Your task to perform on an android device: change text size in settings app Image 0: 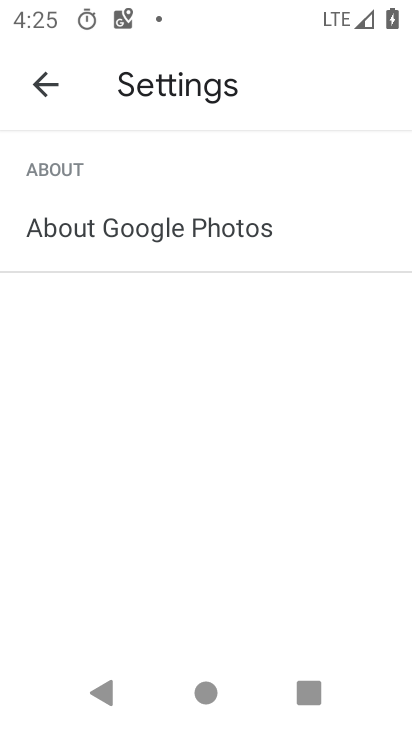
Step 0: press home button
Your task to perform on an android device: change text size in settings app Image 1: 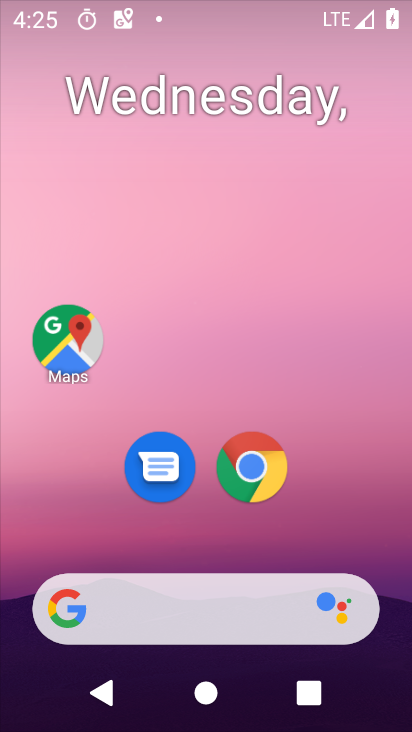
Step 1: drag from (318, 536) to (239, 8)
Your task to perform on an android device: change text size in settings app Image 2: 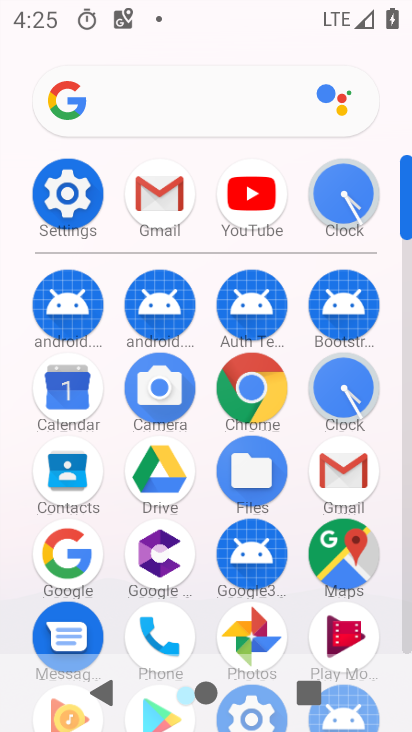
Step 2: click (88, 197)
Your task to perform on an android device: change text size in settings app Image 3: 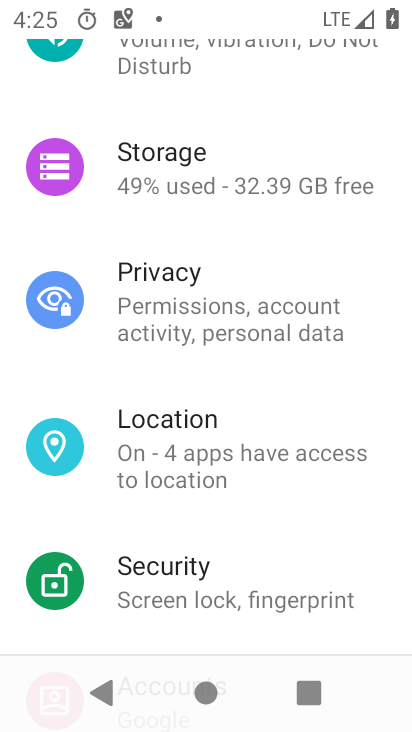
Step 3: drag from (246, 563) to (288, 150)
Your task to perform on an android device: change text size in settings app Image 4: 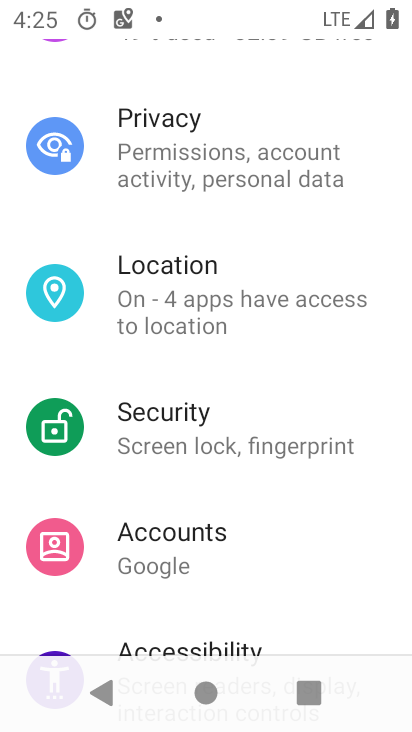
Step 4: drag from (262, 560) to (251, 224)
Your task to perform on an android device: change text size in settings app Image 5: 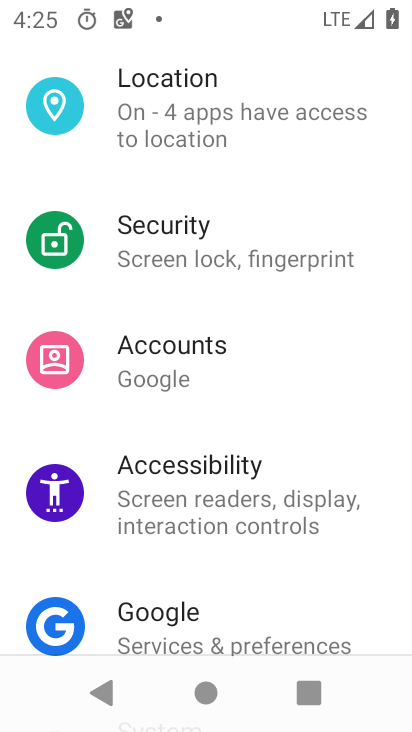
Step 5: drag from (229, 478) to (215, 113)
Your task to perform on an android device: change text size in settings app Image 6: 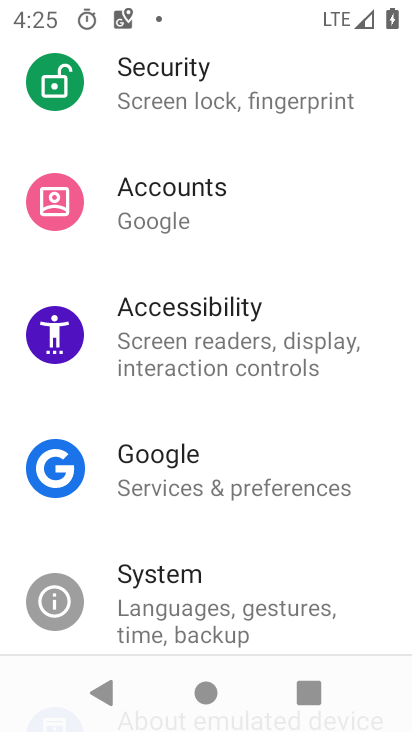
Step 6: drag from (256, 261) to (206, 729)
Your task to perform on an android device: change text size in settings app Image 7: 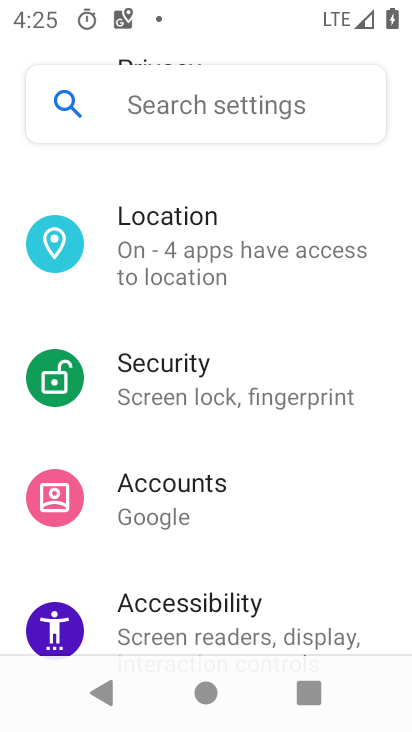
Step 7: drag from (207, 190) to (198, 700)
Your task to perform on an android device: change text size in settings app Image 8: 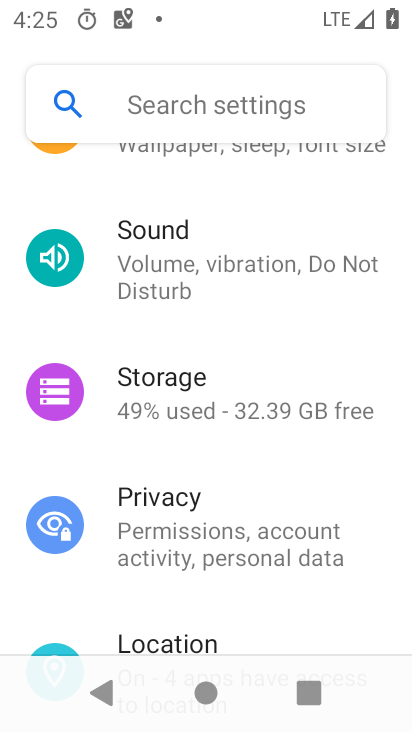
Step 8: drag from (233, 295) to (199, 566)
Your task to perform on an android device: change text size in settings app Image 9: 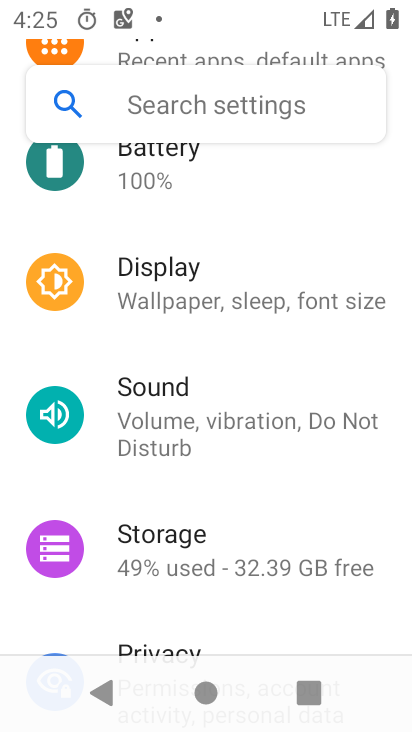
Step 9: click (201, 286)
Your task to perform on an android device: change text size in settings app Image 10: 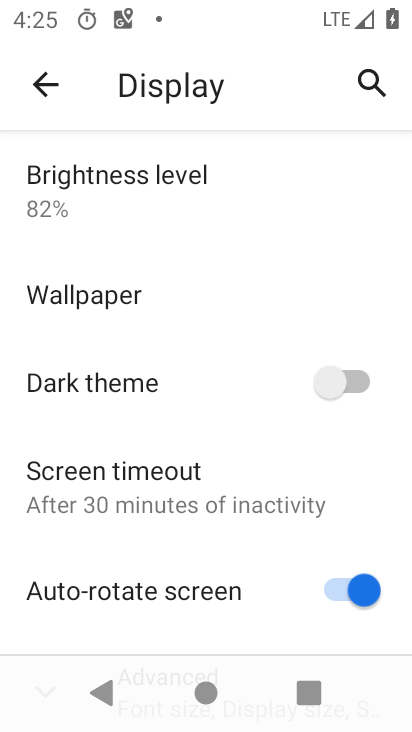
Step 10: drag from (181, 521) to (167, 230)
Your task to perform on an android device: change text size in settings app Image 11: 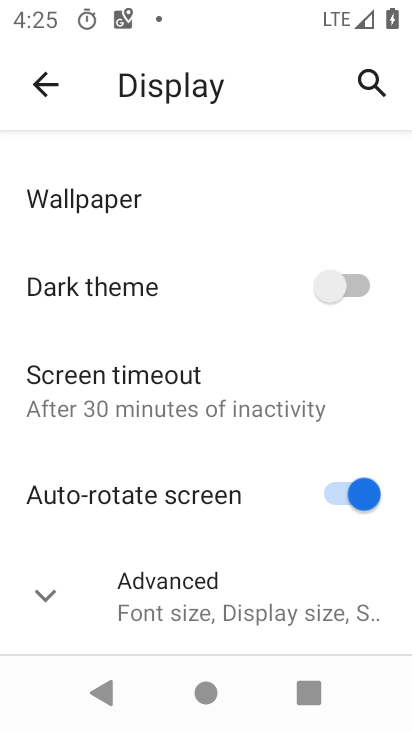
Step 11: drag from (206, 577) to (229, 302)
Your task to perform on an android device: change text size in settings app Image 12: 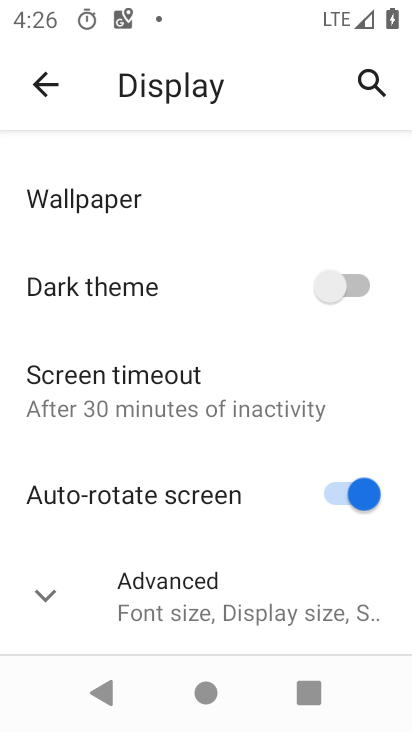
Step 12: click (185, 600)
Your task to perform on an android device: change text size in settings app Image 13: 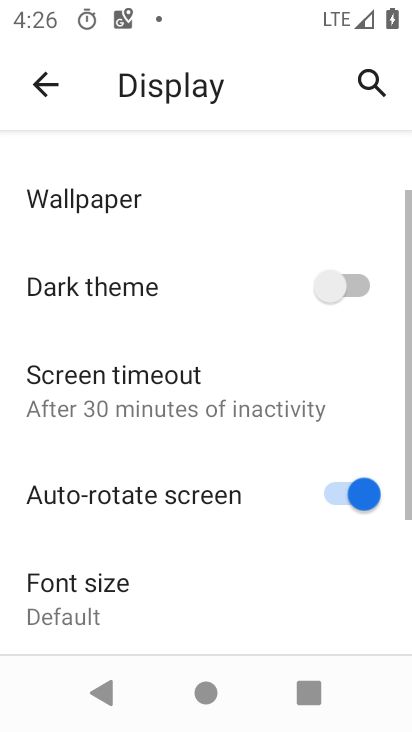
Step 13: click (171, 598)
Your task to perform on an android device: change text size in settings app Image 14: 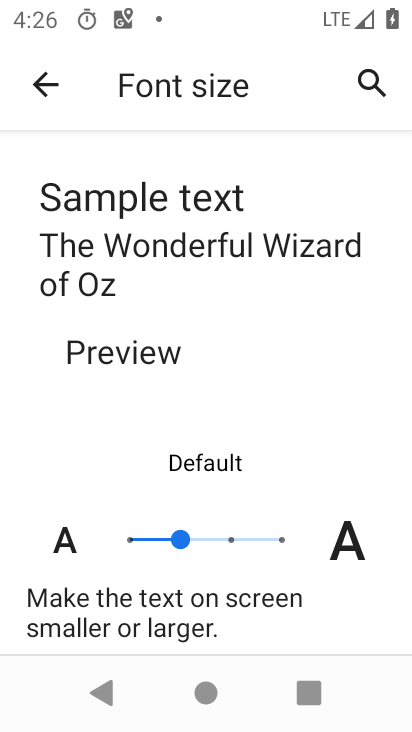
Step 14: click (228, 537)
Your task to perform on an android device: change text size in settings app Image 15: 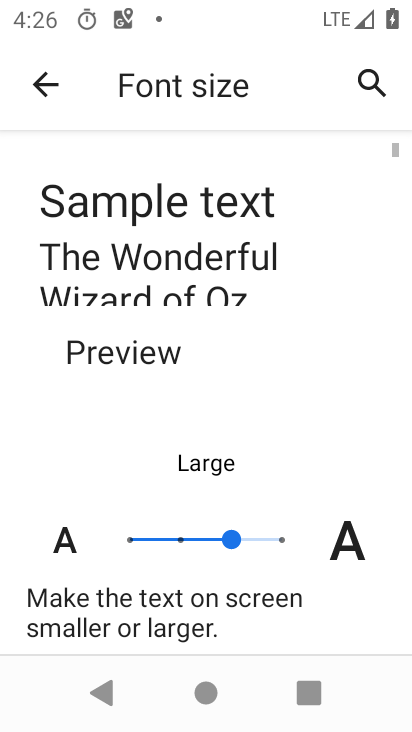
Step 15: click (127, 545)
Your task to perform on an android device: change text size in settings app Image 16: 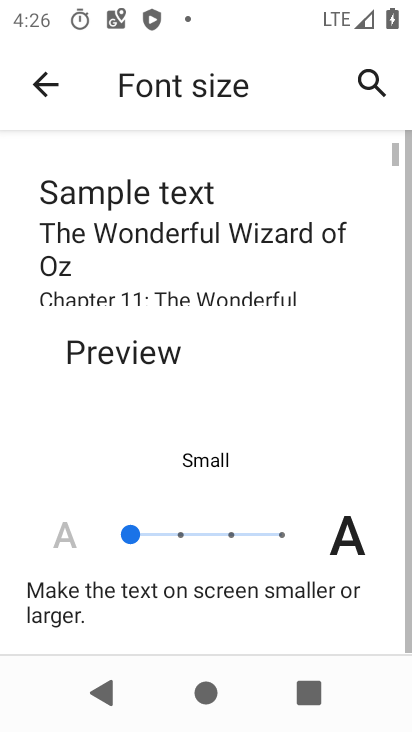
Step 16: task complete